Your task to perform on an android device: Open Chrome and go to settings Image 0: 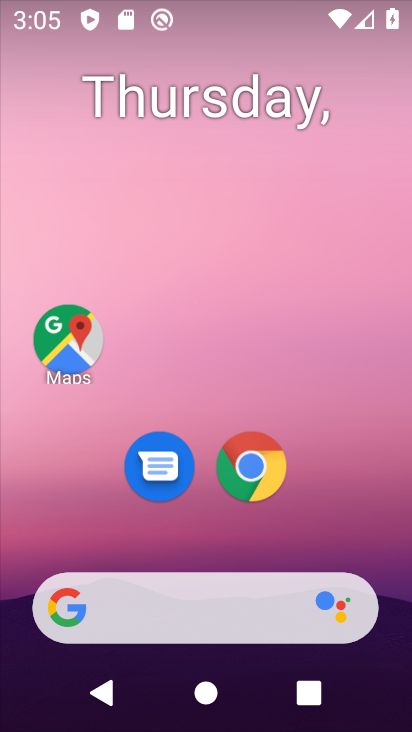
Step 0: drag from (187, 56) to (368, 47)
Your task to perform on an android device: Open Chrome and go to settings Image 1: 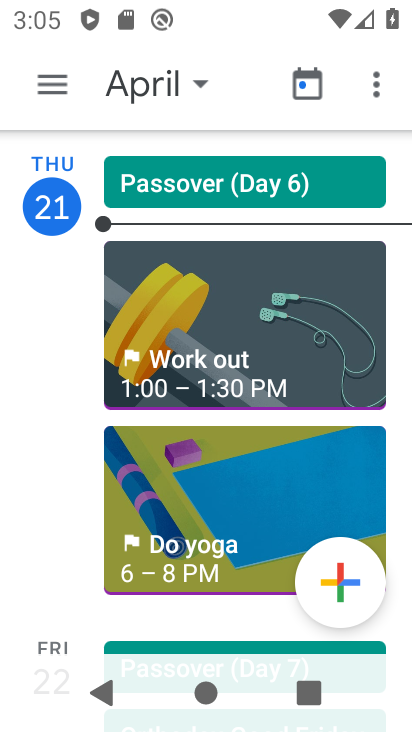
Step 1: press home button
Your task to perform on an android device: Open Chrome and go to settings Image 2: 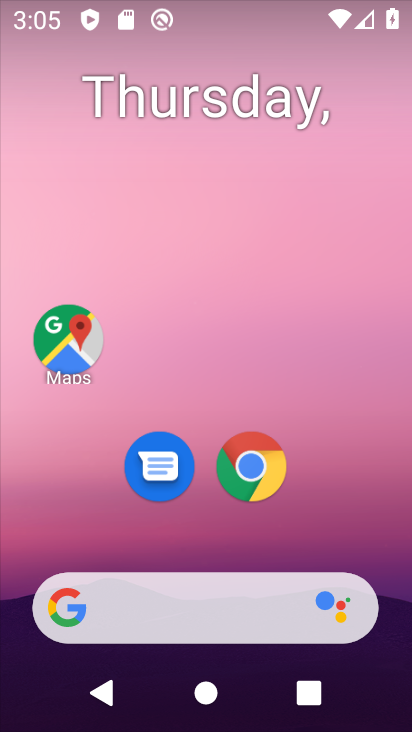
Step 2: drag from (190, 542) to (243, 18)
Your task to perform on an android device: Open Chrome and go to settings Image 3: 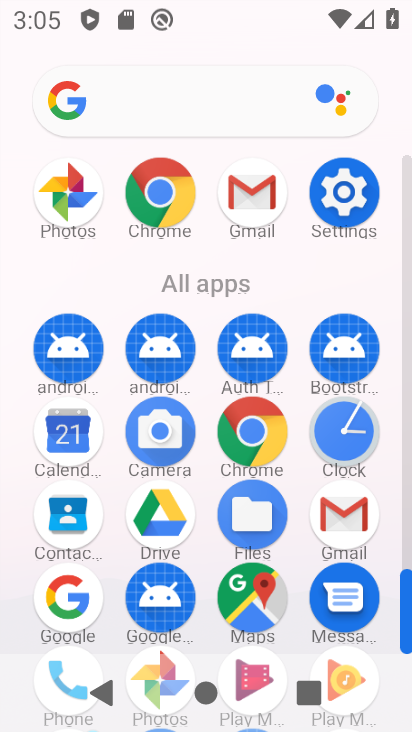
Step 3: click (269, 441)
Your task to perform on an android device: Open Chrome and go to settings Image 4: 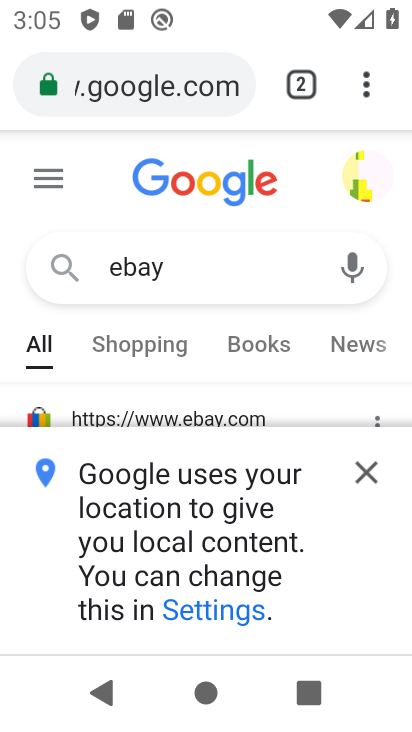
Step 4: task complete